Your task to perform on an android device: What is the recent news? Image 0: 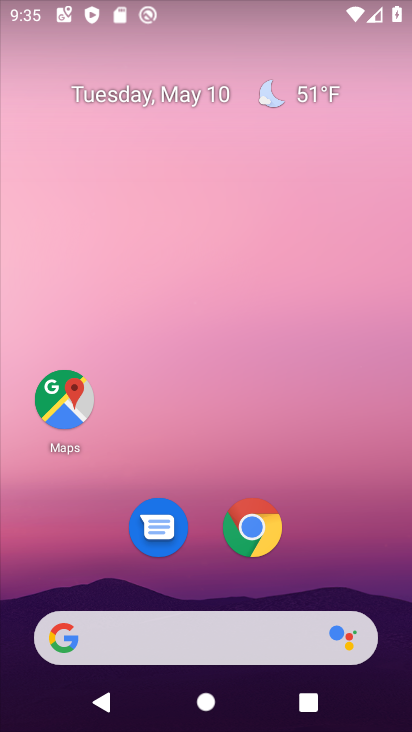
Step 0: drag from (3, 267) to (393, 273)
Your task to perform on an android device: What is the recent news? Image 1: 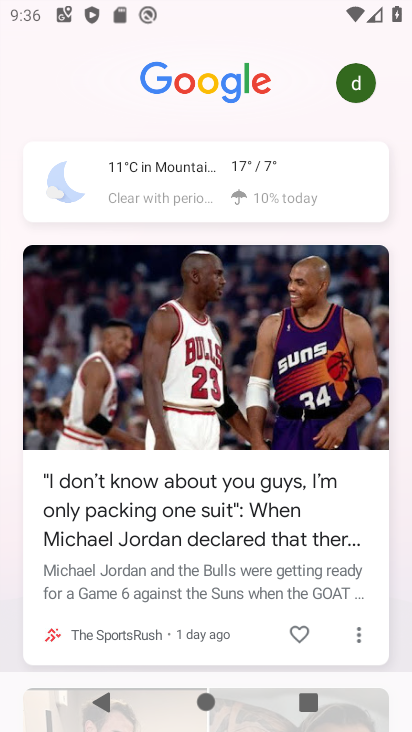
Step 1: task complete